Your task to perform on an android device: check google app version Image 0: 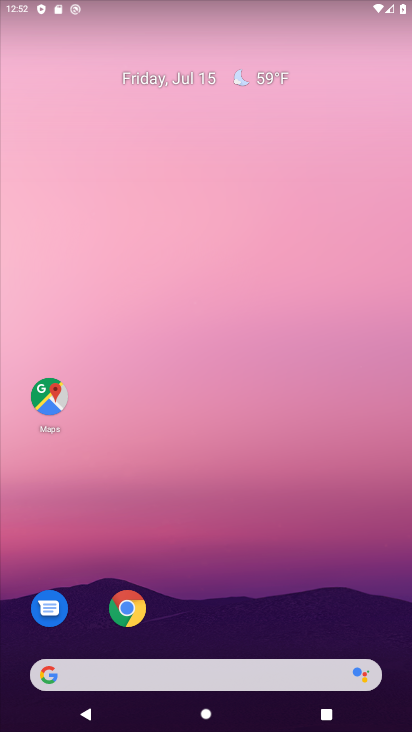
Step 0: drag from (219, 656) to (215, 321)
Your task to perform on an android device: check google app version Image 1: 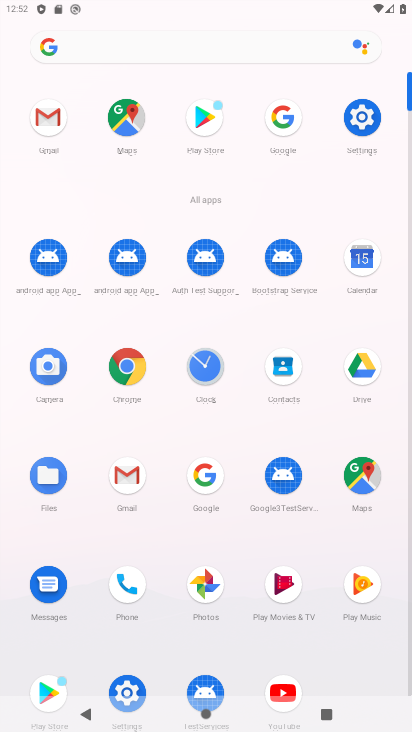
Step 1: click (193, 476)
Your task to perform on an android device: check google app version Image 2: 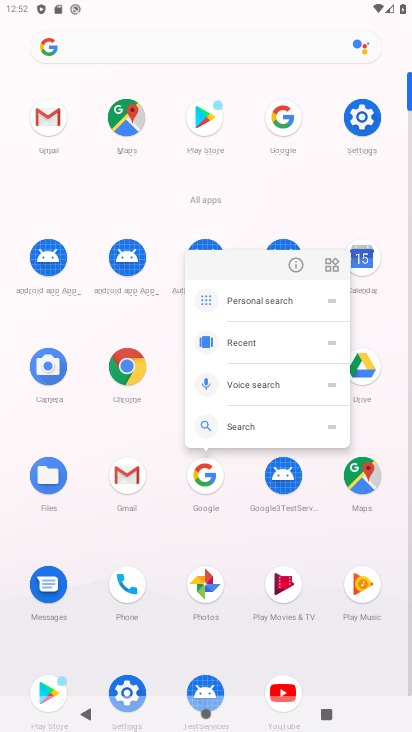
Step 2: click (295, 260)
Your task to perform on an android device: check google app version Image 3: 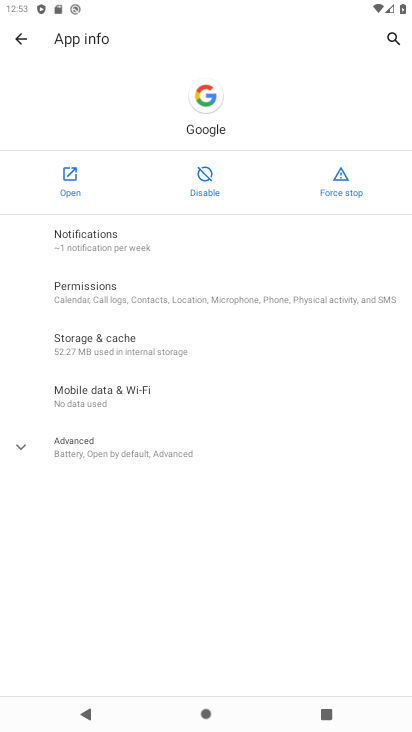
Step 3: click (113, 457)
Your task to perform on an android device: check google app version Image 4: 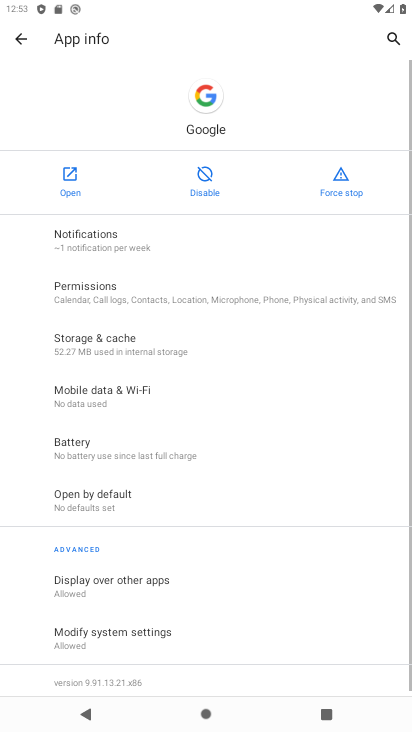
Step 4: task complete